Your task to perform on an android device: add a label to a message in the gmail app Image 0: 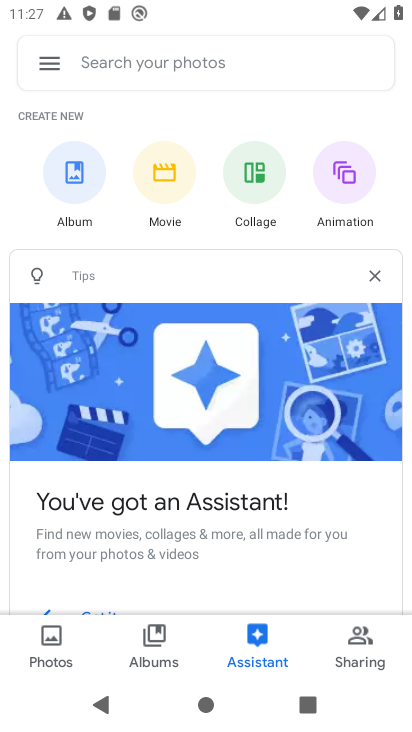
Step 0: press back button
Your task to perform on an android device: add a label to a message in the gmail app Image 1: 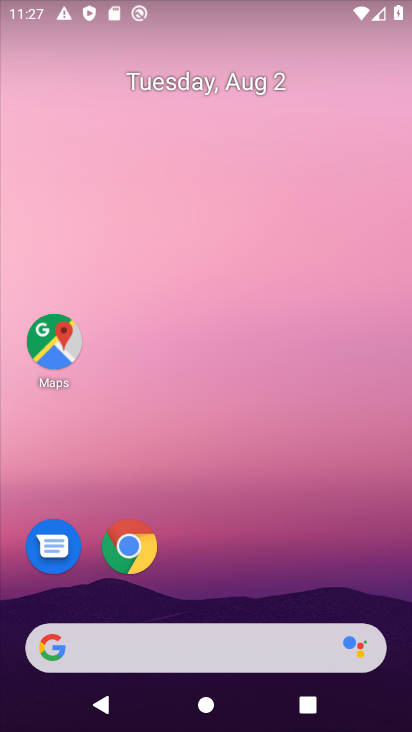
Step 1: drag from (232, 564) to (183, 150)
Your task to perform on an android device: add a label to a message in the gmail app Image 2: 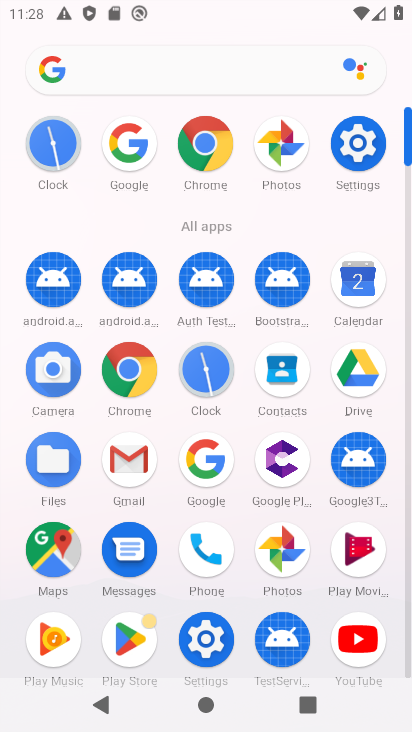
Step 2: click (124, 467)
Your task to perform on an android device: add a label to a message in the gmail app Image 3: 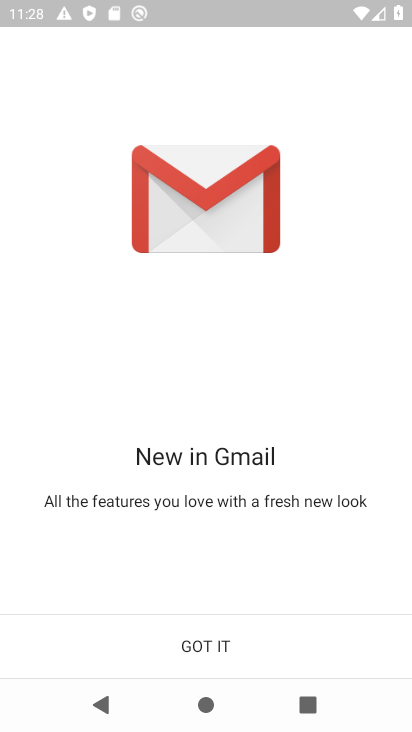
Step 3: click (216, 646)
Your task to perform on an android device: add a label to a message in the gmail app Image 4: 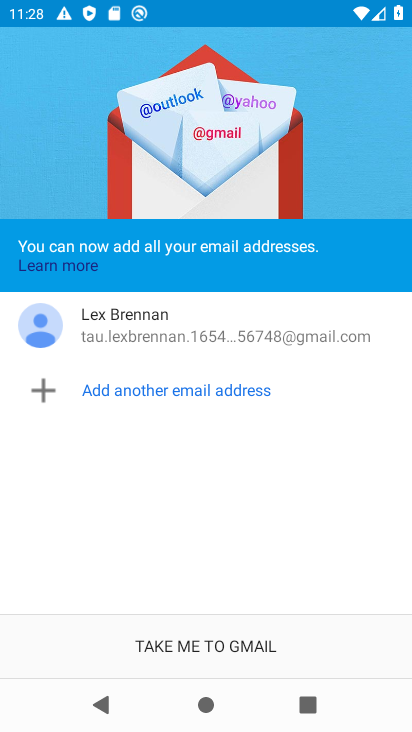
Step 4: click (211, 634)
Your task to perform on an android device: add a label to a message in the gmail app Image 5: 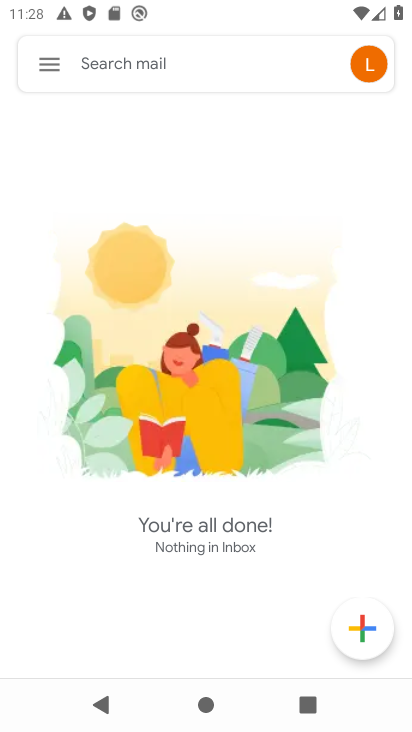
Step 5: click (38, 70)
Your task to perform on an android device: add a label to a message in the gmail app Image 6: 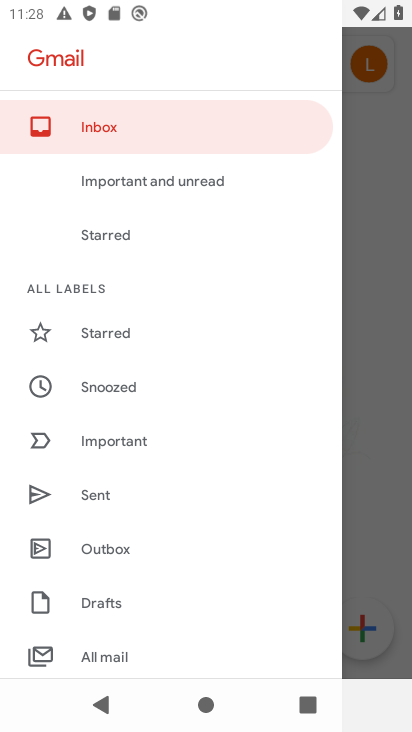
Step 6: drag from (182, 642) to (194, 398)
Your task to perform on an android device: add a label to a message in the gmail app Image 7: 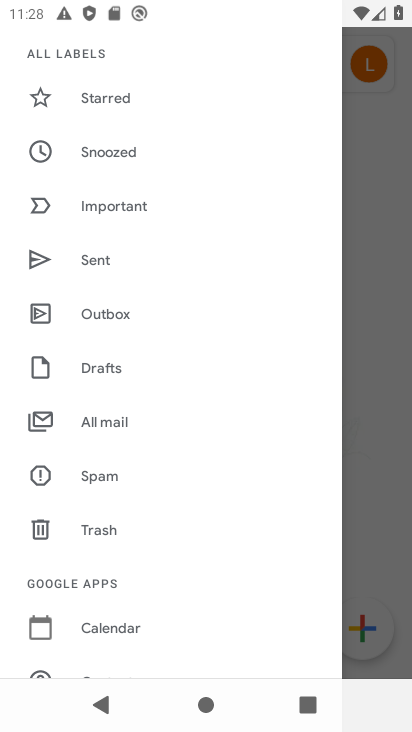
Step 7: click (145, 429)
Your task to perform on an android device: add a label to a message in the gmail app Image 8: 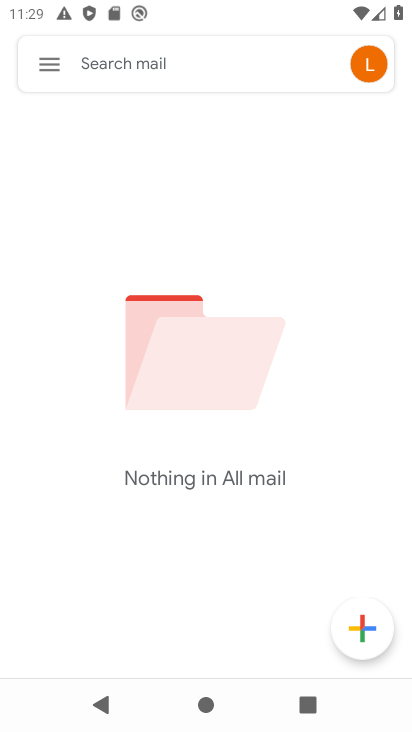
Step 8: task complete